Your task to perform on an android device: add a contact in the contacts app Image 0: 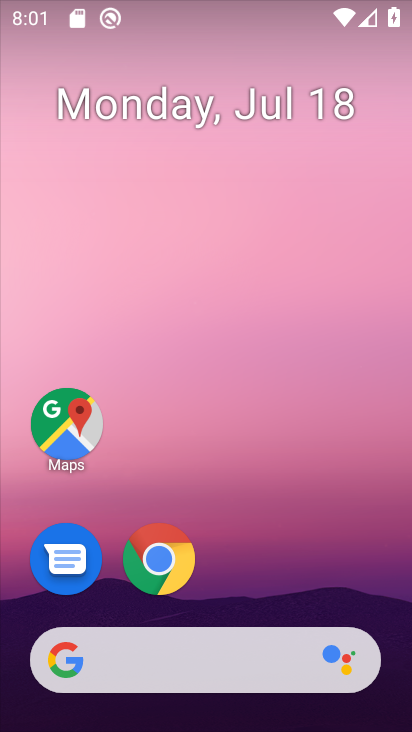
Step 0: drag from (340, 560) to (389, 130)
Your task to perform on an android device: add a contact in the contacts app Image 1: 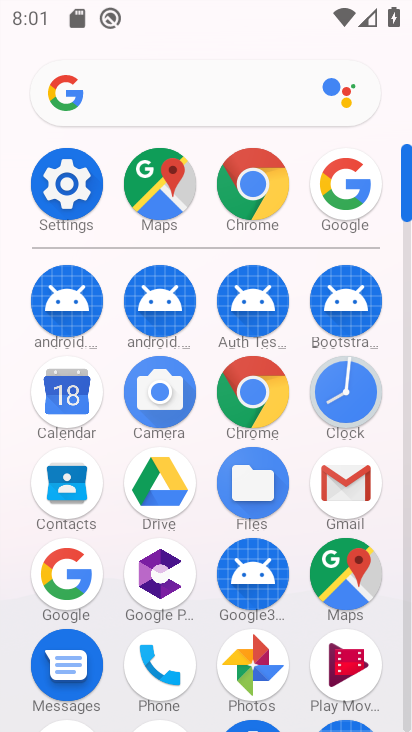
Step 1: click (83, 485)
Your task to perform on an android device: add a contact in the contacts app Image 2: 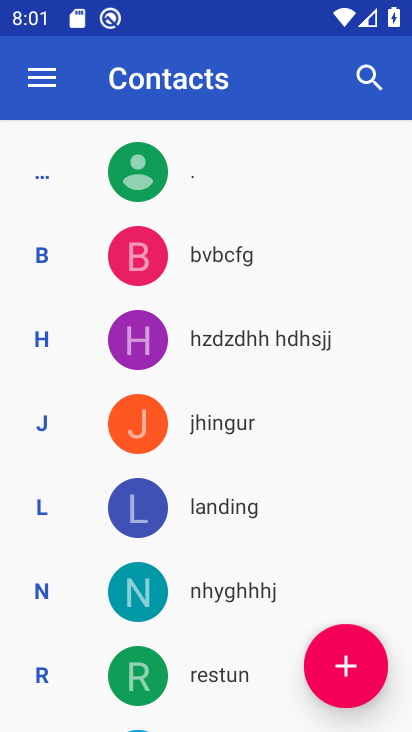
Step 2: click (351, 663)
Your task to perform on an android device: add a contact in the contacts app Image 3: 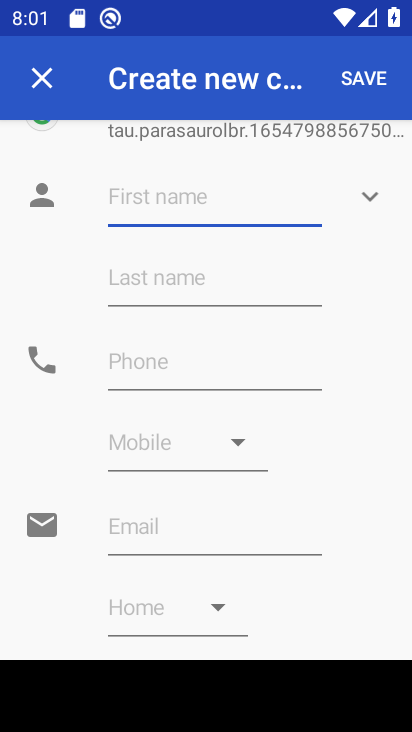
Step 3: type "lololol"
Your task to perform on an android device: add a contact in the contacts app Image 4: 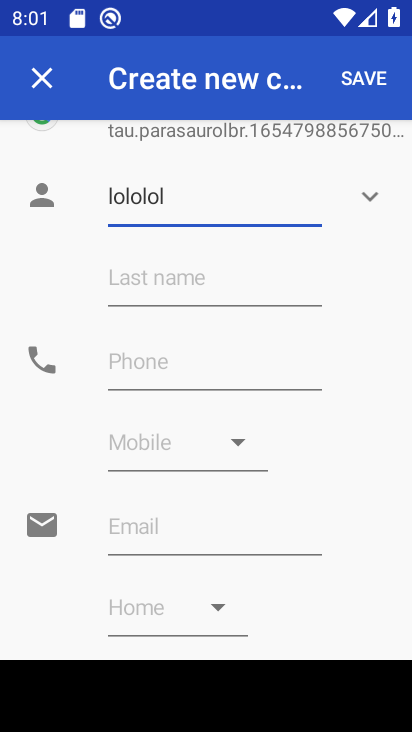
Step 4: click (249, 375)
Your task to perform on an android device: add a contact in the contacts app Image 5: 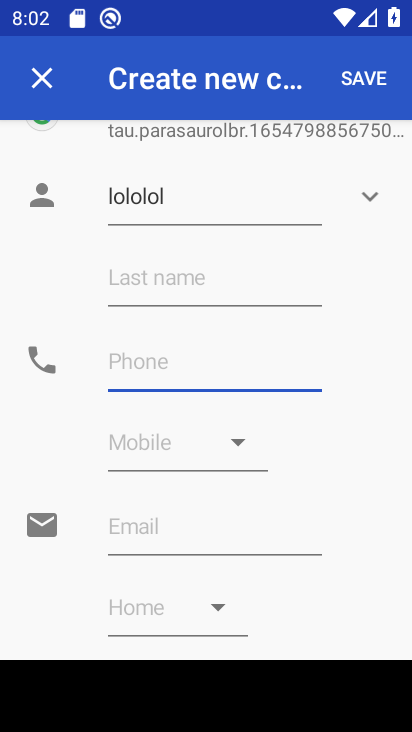
Step 5: type "12345667888"
Your task to perform on an android device: add a contact in the contacts app Image 6: 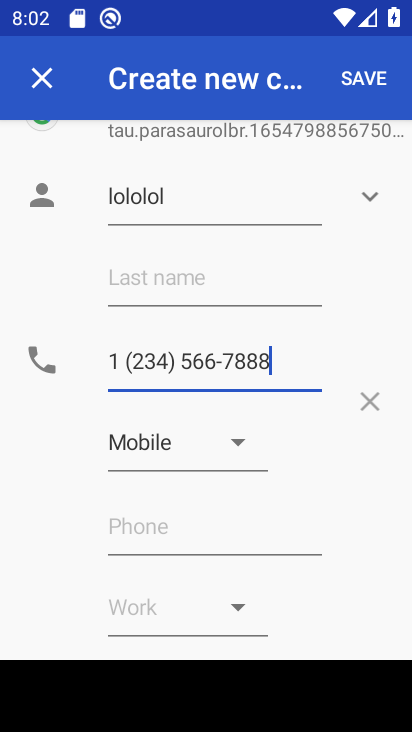
Step 6: click (373, 85)
Your task to perform on an android device: add a contact in the contacts app Image 7: 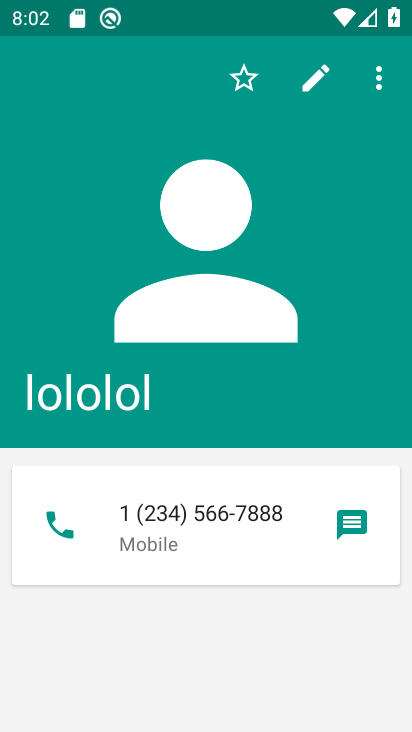
Step 7: task complete